Your task to perform on an android device: Go to accessibility settings Image 0: 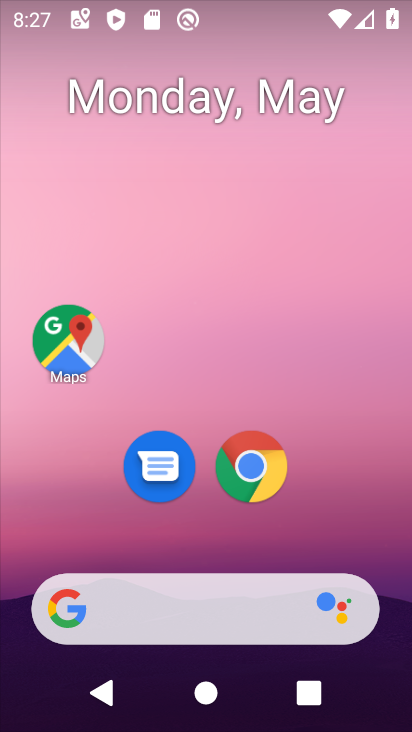
Step 0: drag from (242, 649) to (410, 196)
Your task to perform on an android device: Go to accessibility settings Image 1: 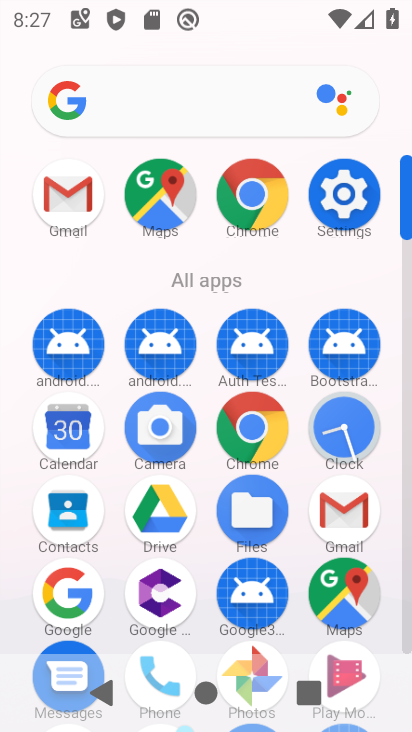
Step 1: click (354, 188)
Your task to perform on an android device: Go to accessibility settings Image 2: 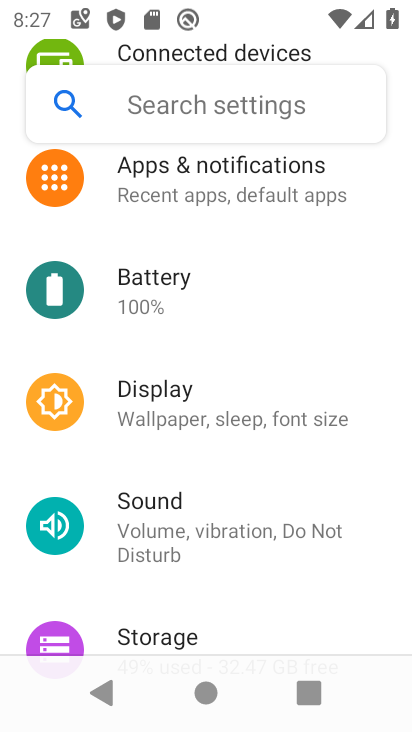
Step 2: click (209, 93)
Your task to perform on an android device: Go to accessibility settings Image 3: 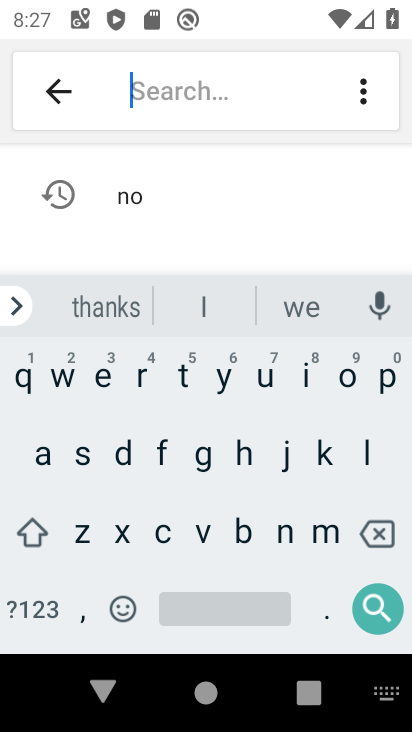
Step 3: click (54, 452)
Your task to perform on an android device: Go to accessibility settings Image 4: 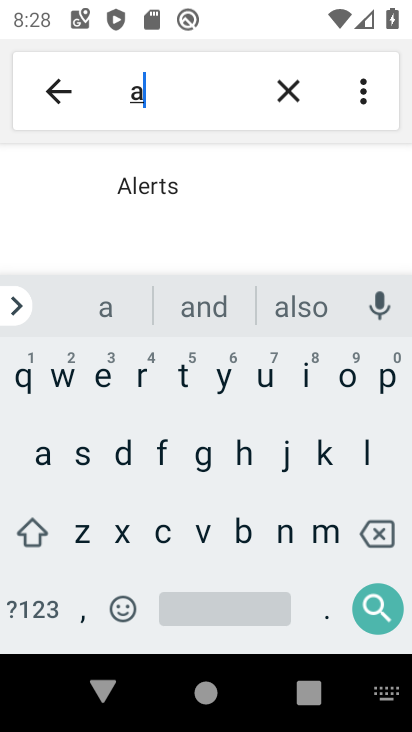
Step 4: click (160, 534)
Your task to perform on an android device: Go to accessibility settings Image 5: 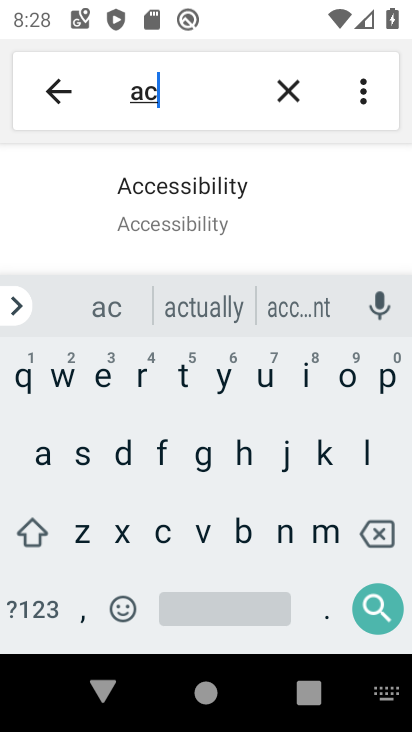
Step 5: click (162, 533)
Your task to perform on an android device: Go to accessibility settings Image 6: 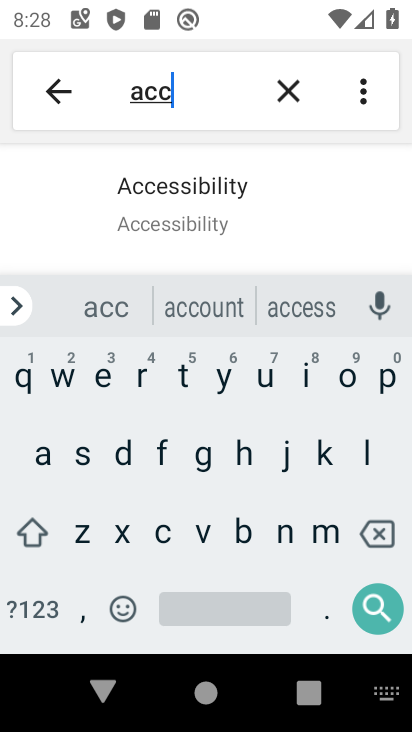
Step 6: click (187, 191)
Your task to perform on an android device: Go to accessibility settings Image 7: 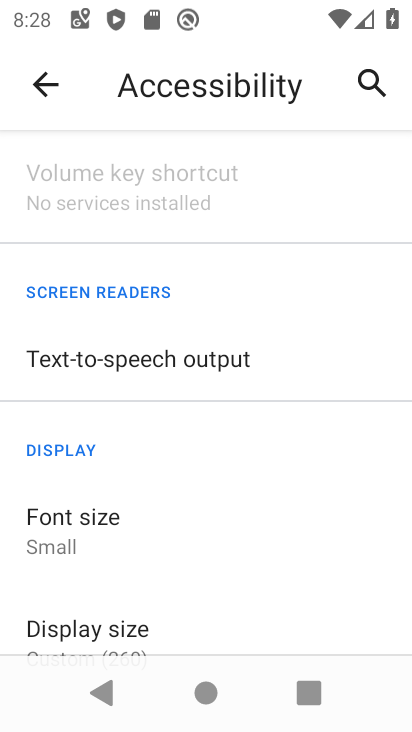
Step 7: task complete